Your task to perform on an android device: Search for "acer predator" on walmart, select the first entry, and add it to the cart. Image 0: 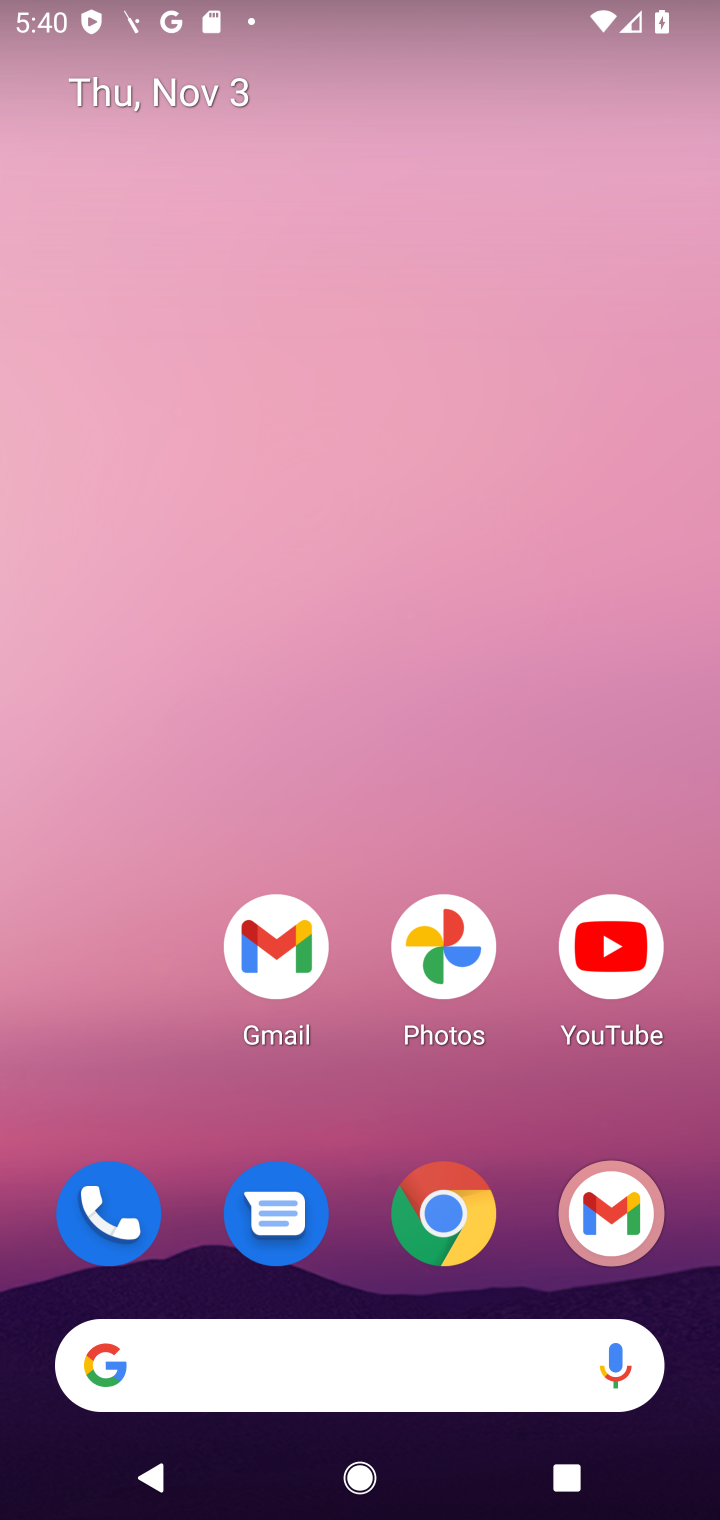
Step 0: click (436, 1241)
Your task to perform on an android device: Search for "acer predator" on walmart, select the first entry, and add it to the cart. Image 1: 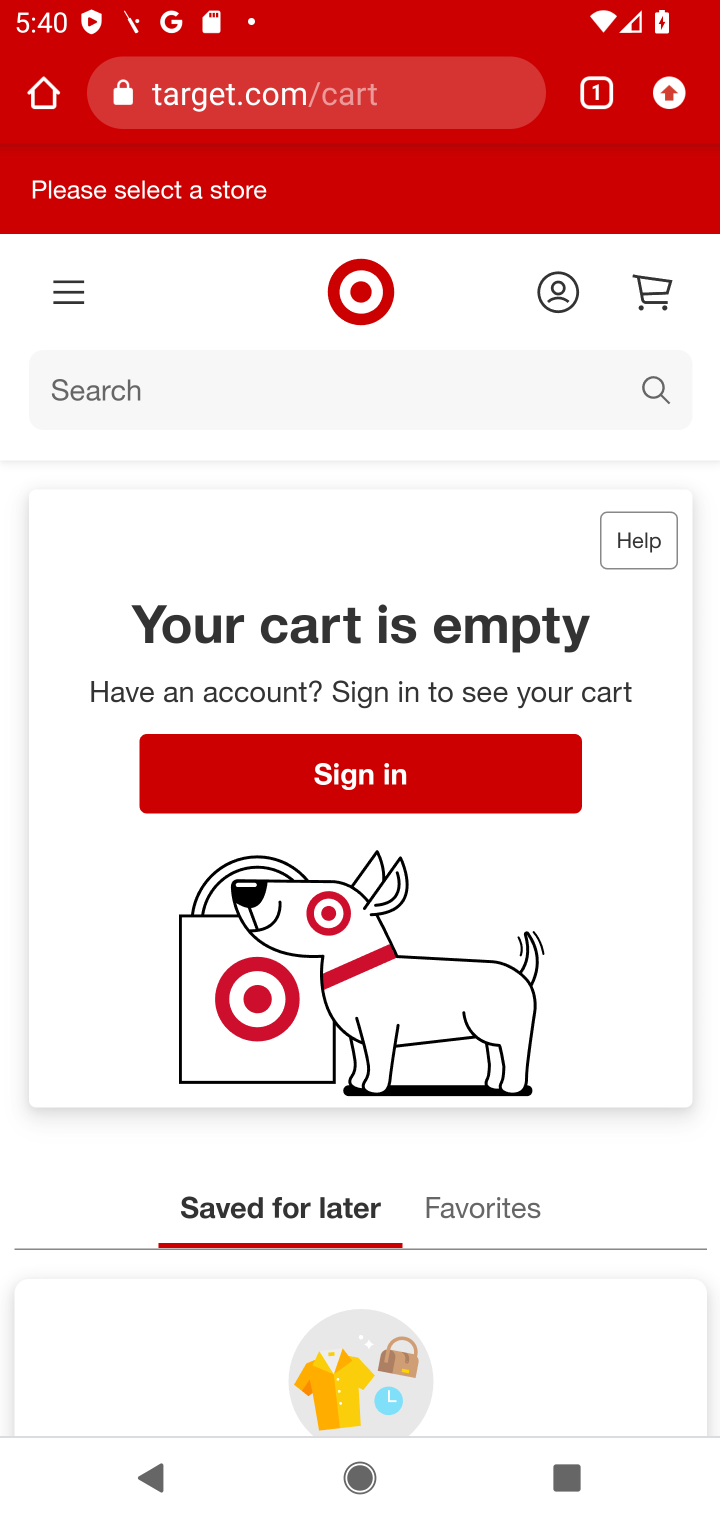
Step 1: click (297, 104)
Your task to perform on an android device: Search for "acer predator" on walmart, select the first entry, and add it to the cart. Image 2: 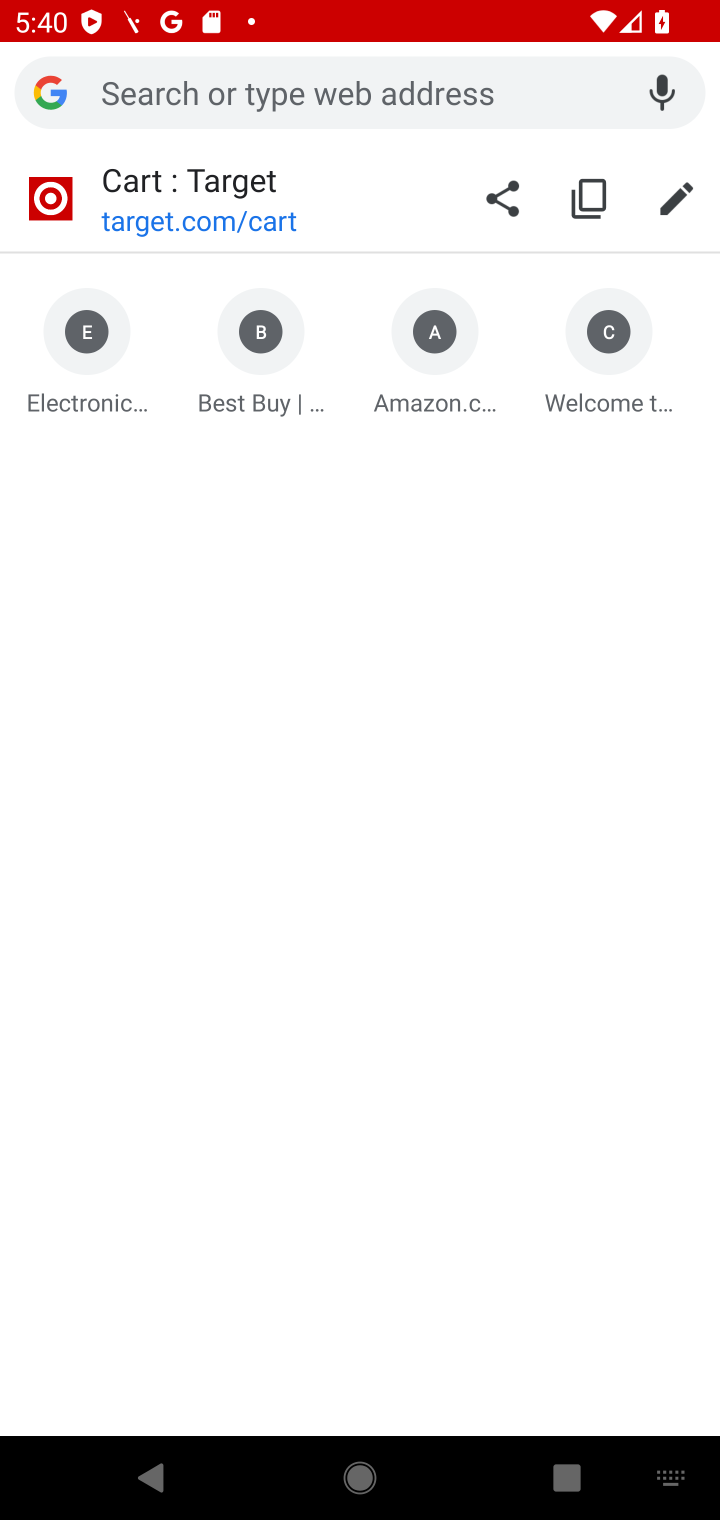
Step 2: type "walmart.com"
Your task to perform on an android device: Search for "acer predator" on walmart, select the first entry, and add it to the cart. Image 3: 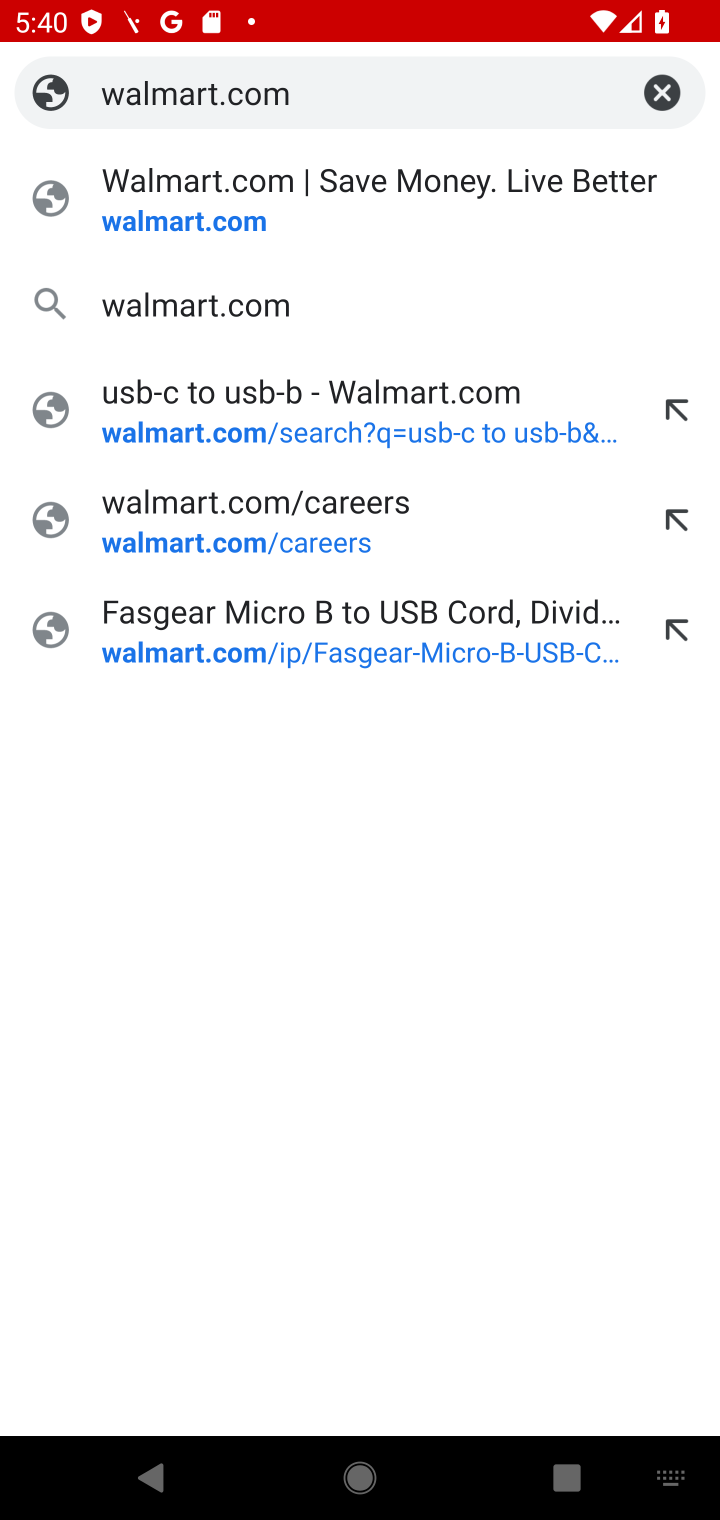
Step 3: click (180, 225)
Your task to perform on an android device: Search for "acer predator" on walmart, select the first entry, and add it to the cart. Image 4: 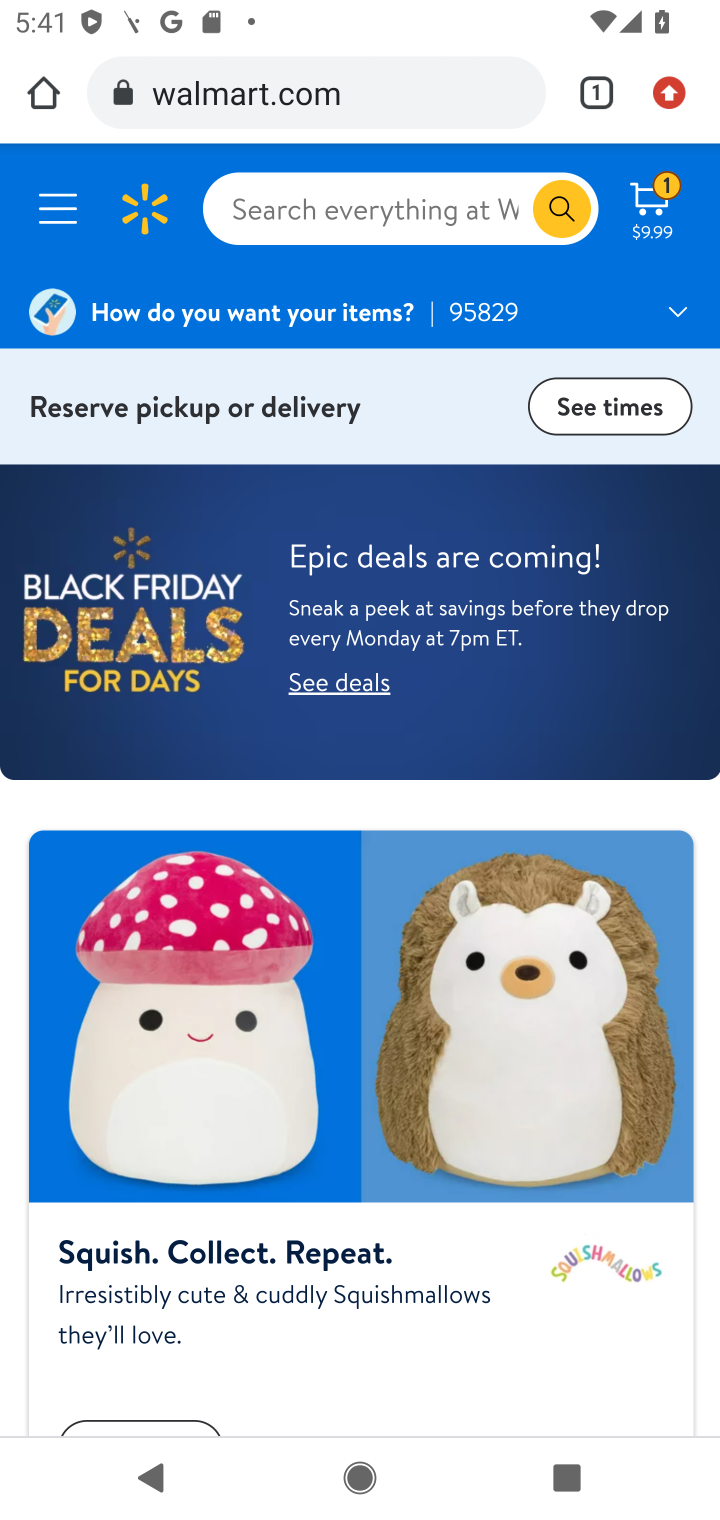
Step 4: click (330, 213)
Your task to perform on an android device: Search for "acer predator" on walmart, select the first entry, and add it to the cart. Image 5: 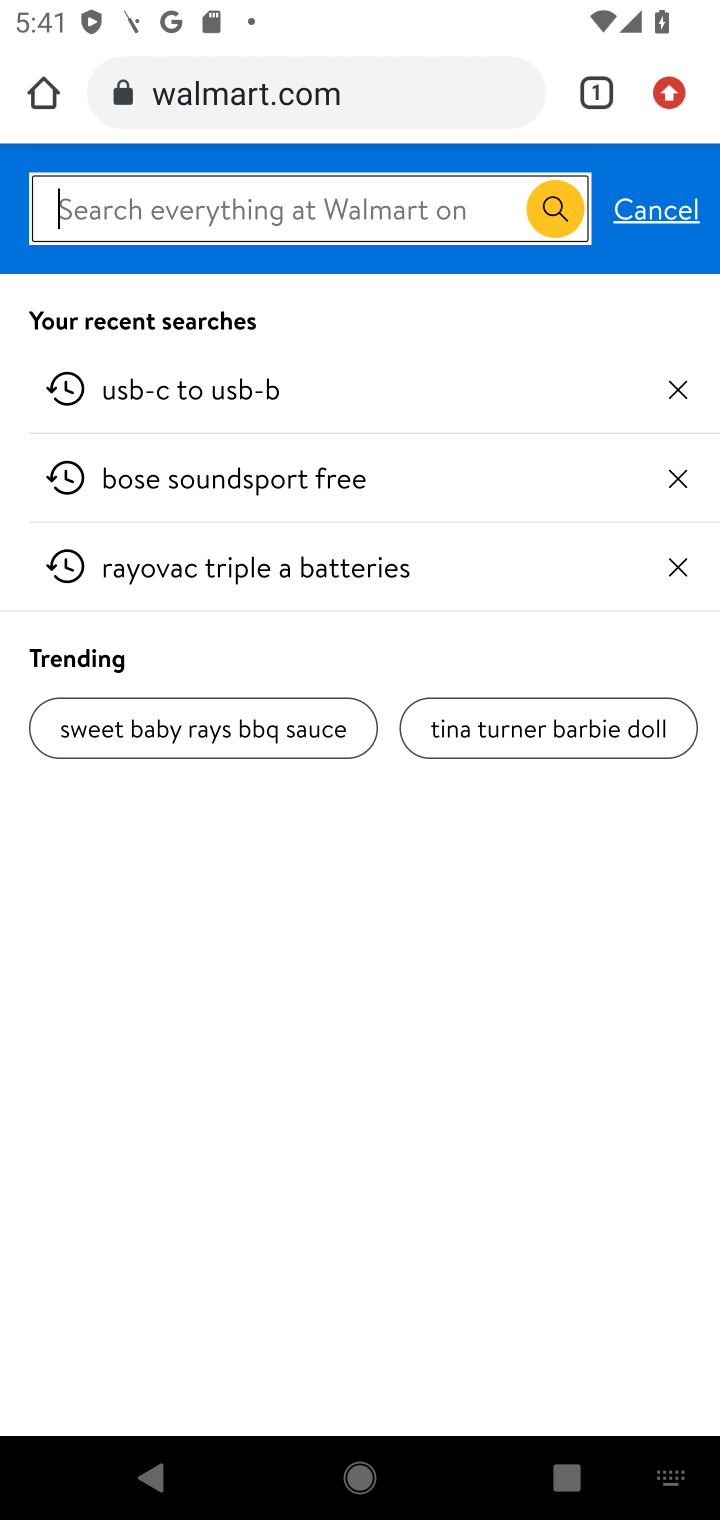
Step 5: type "acer predator"
Your task to perform on an android device: Search for "acer predator" on walmart, select the first entry, and add it to the cart. Image 6: 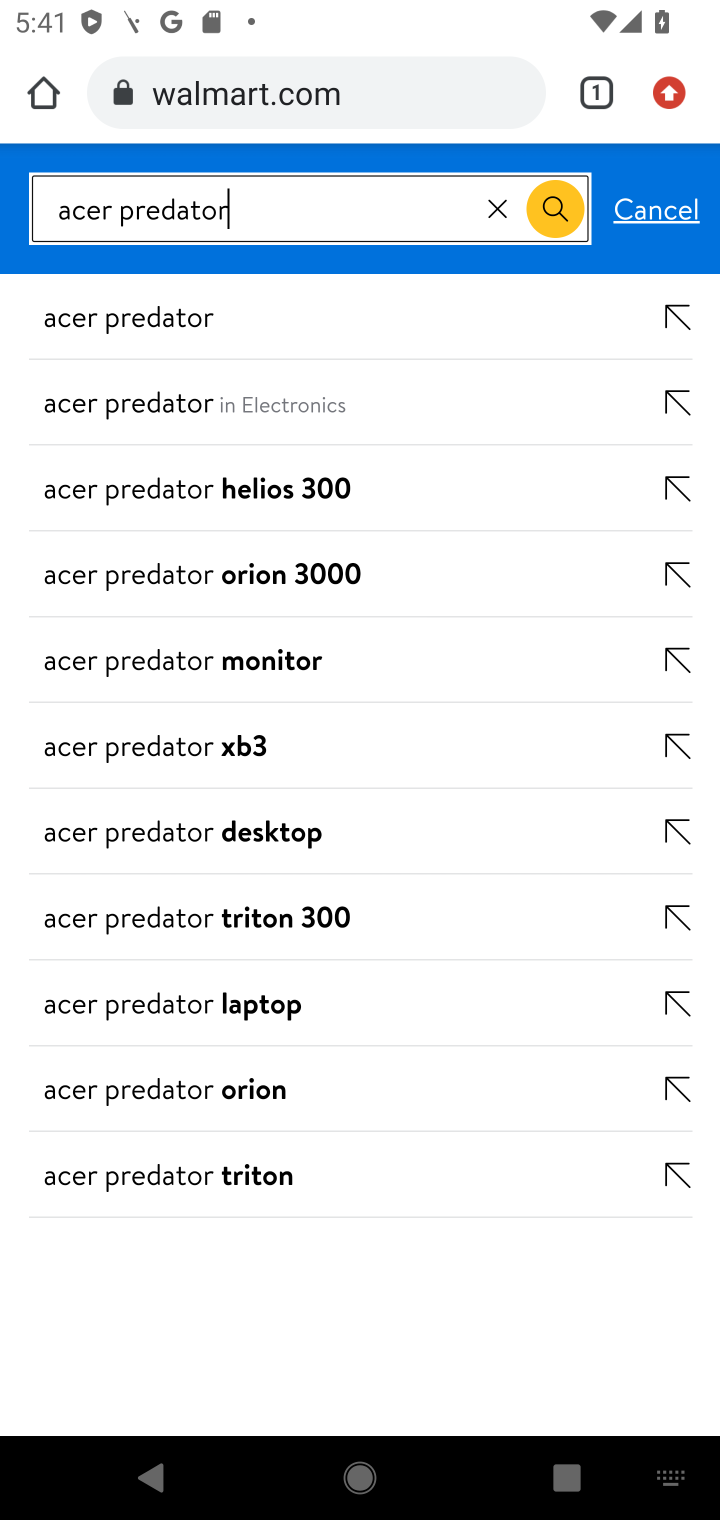
Step 6: click (167, 332)
Your task to perform on an android device: Search for "acer predator" on walmart, select the first entry, and add it to the cart. Image 7: 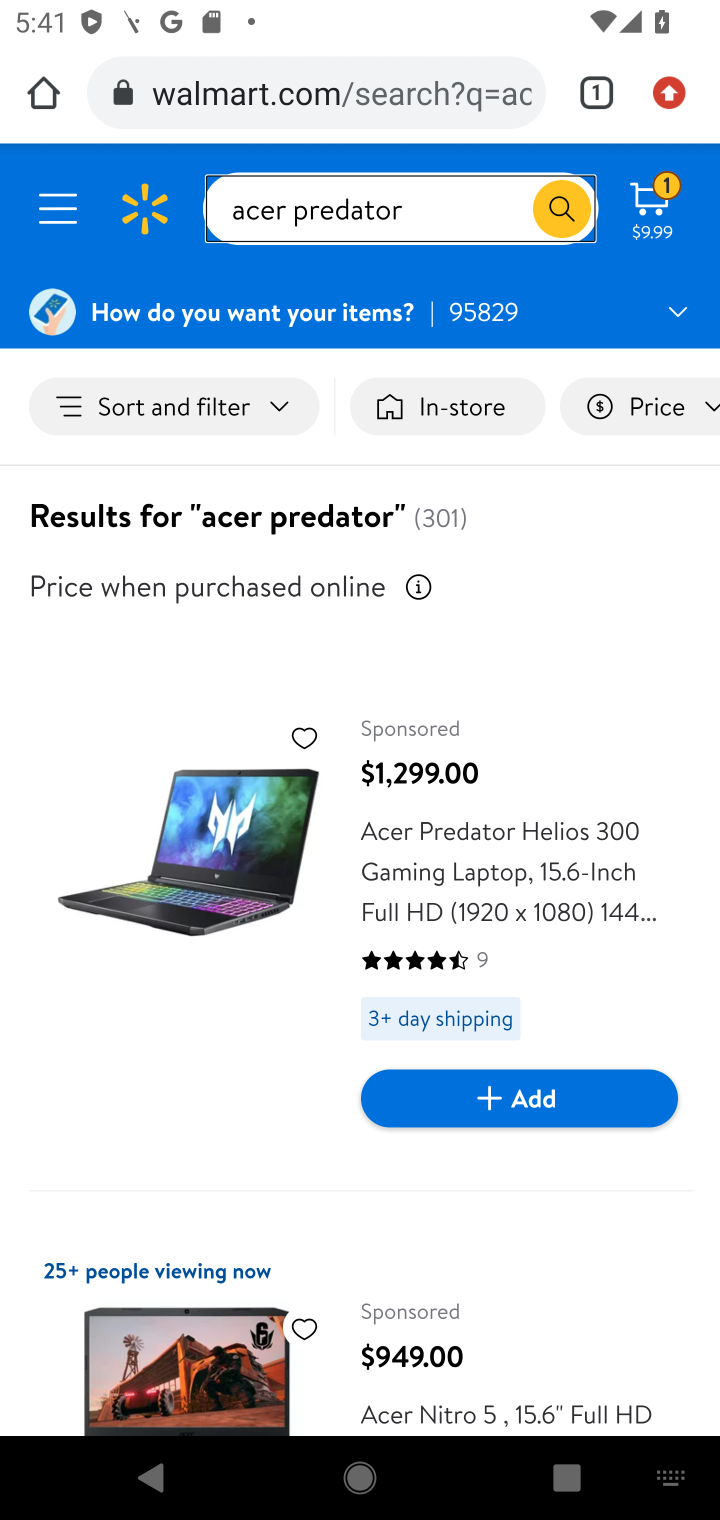
Step 7: click (428, 905)
Your task to perform on an android device: Search for "acer predator" on walmart, select the first entry, and add it to the cart. Image 8: 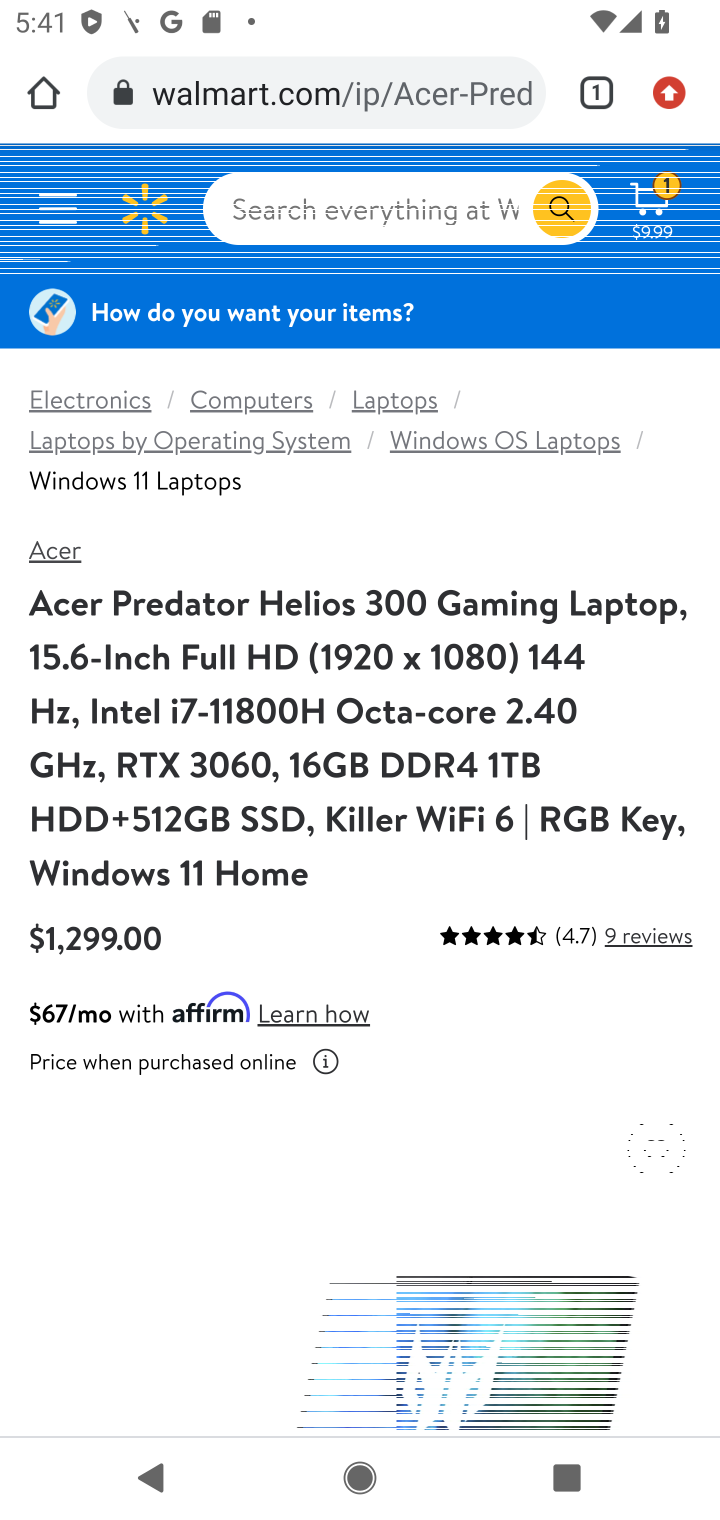
Step 8: drag from (412, 970) to (396, 320)
Your task to perform on an android device: Search for "acer predator" on walmart, select the first entry, and add it to the cart. Image 9: 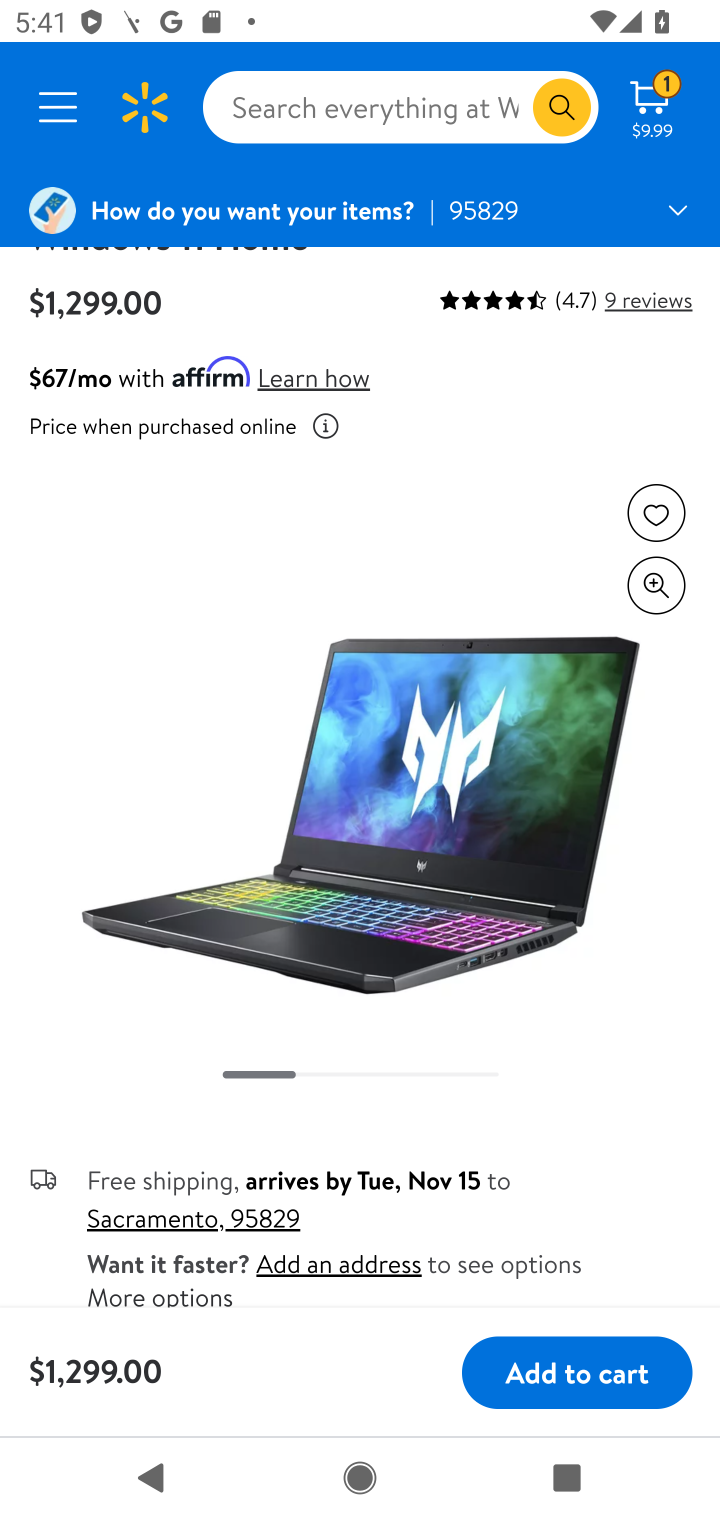
Step 9: drag from (334, 906) to (359, 435)
Your task to perform on an android device: Search for "acer predator" on walmart, select the first entry, and add it to the cart. Image 10: 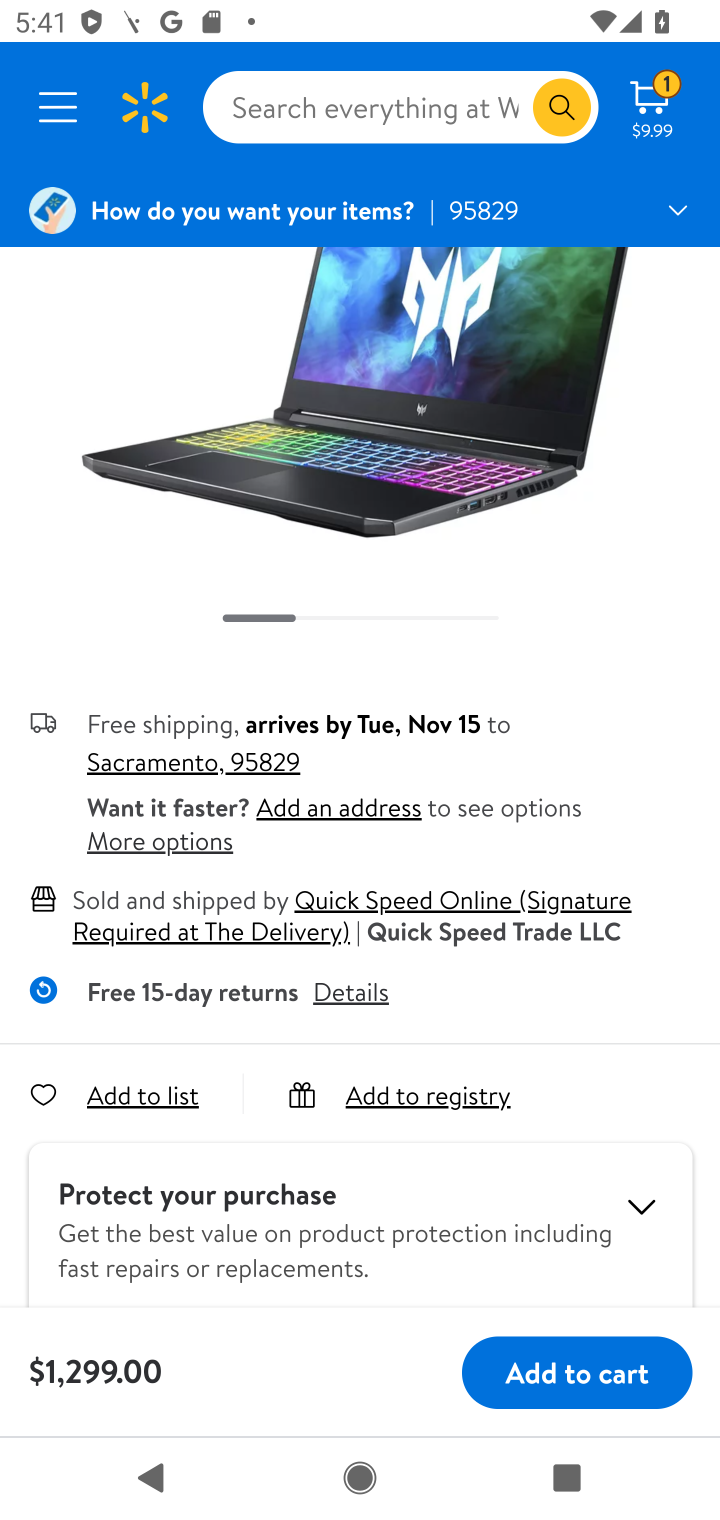
Step 10: click (561, 1377)
Your task to perform on an android device: Search for "acer predator" on walmart, select the first entry, and add it to the cart. Image 11: 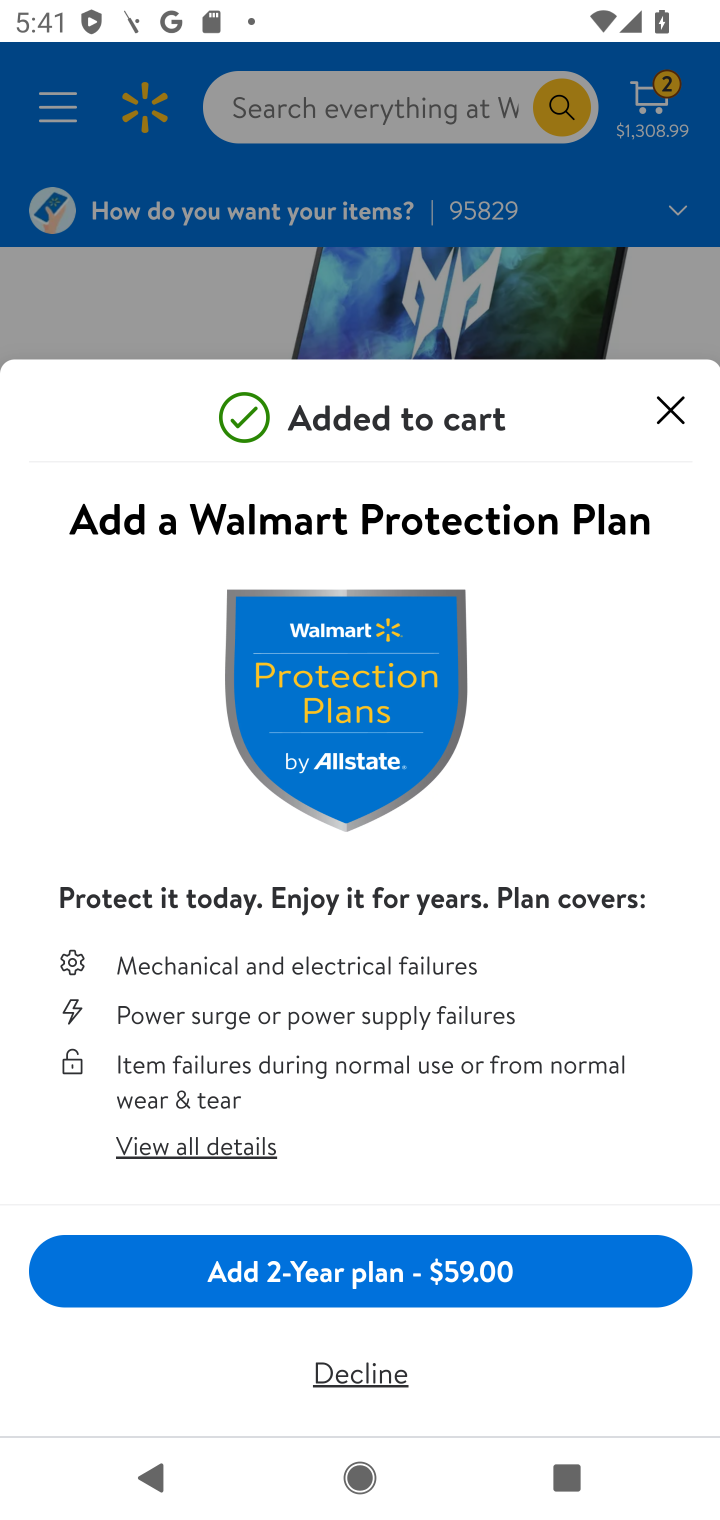
Step 11: task complete